Your task to perform on an android device: Show me productivity apps on the Play Store Image 0: 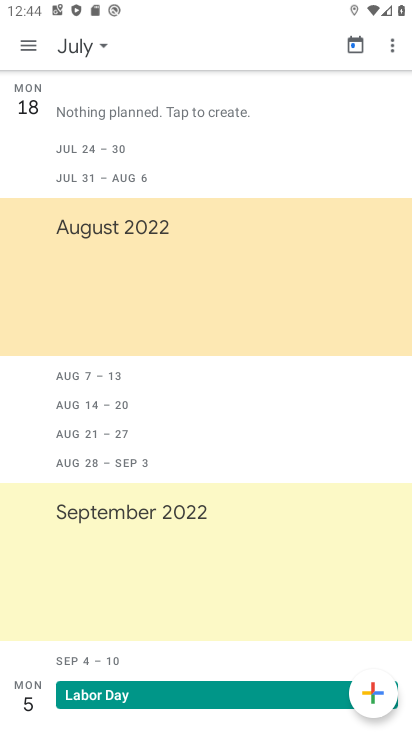
Step 0: drag from (131, 669) to (152, 264)
Your task to perform on an android device: Show me productivity apps on the Play Store Image 1: 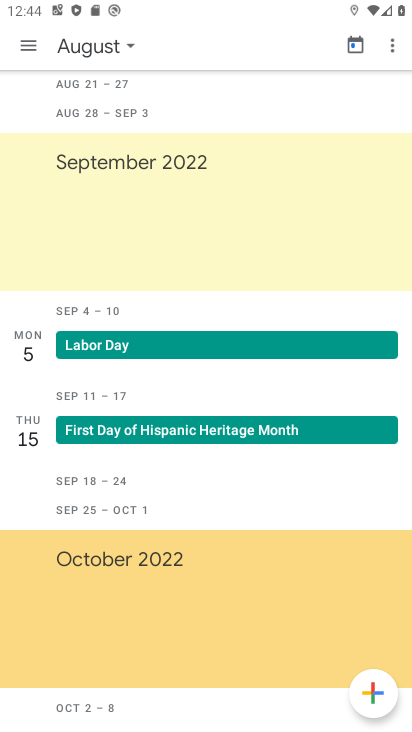
Step 1: press home button
Your task to perform on an android device: Show me productivity apps on the Play Store Image 2: 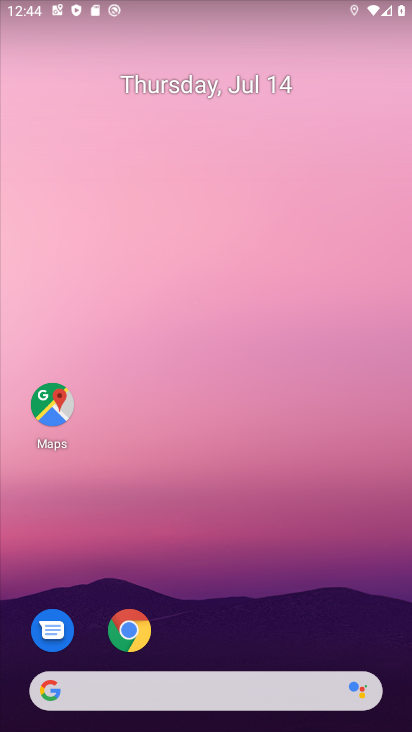
Step 2: drag from (201, 645) to (220, 227)
Your task to perform on an android device: Show me productivity apps on the Play Store Image 3: 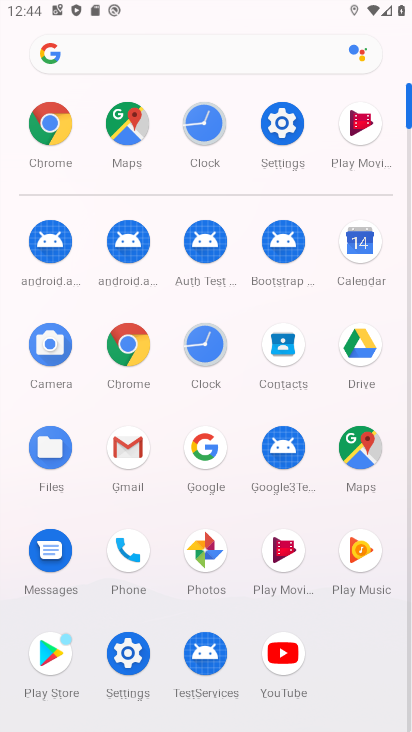
Step 3: click (45, 656)
Your task to perform on an android device: Show me productivity apps on the Play Store Image 4: 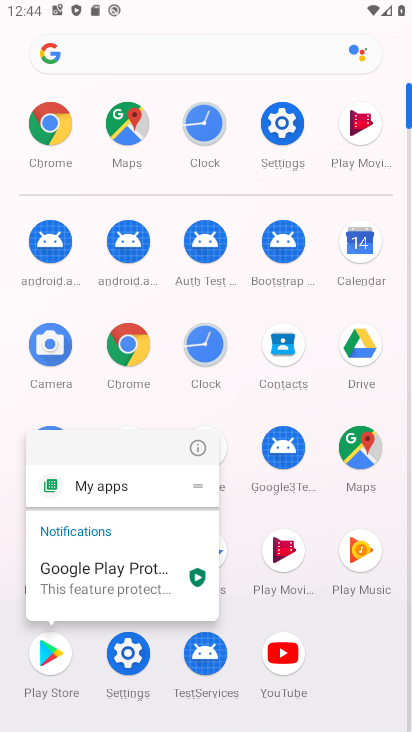
Step 4: click (60, 662)
Your task to perform on an android device: Show me productivity apps on the Play Store Image 5: 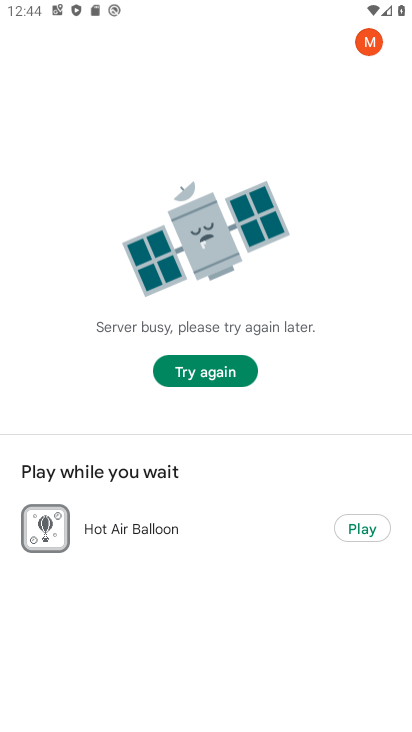
Step 5: click (182, 373)
Your task to perform on an android device: Show me productivity apps on the Play Store Image 6: 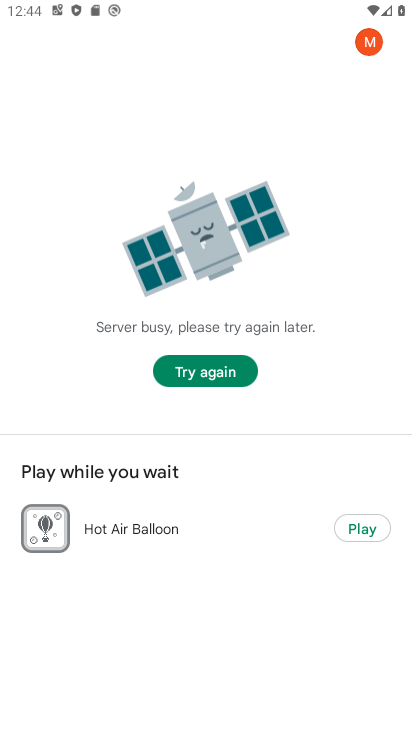
Step 6: task complete